Your task to perform on an android device: turn off sleep mode Image 0: 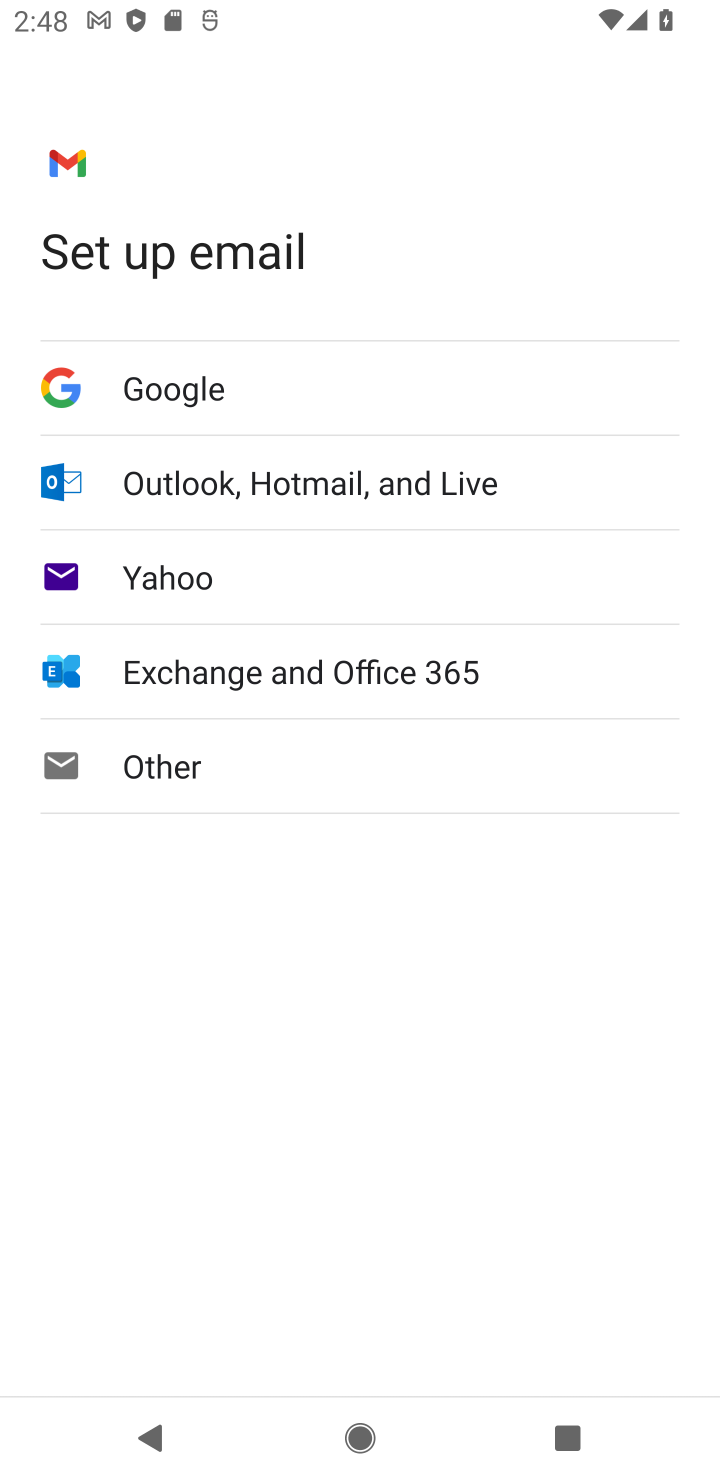
Step 0: press home button
Your task to perform on an android device: turn off sleep mode Image 1: 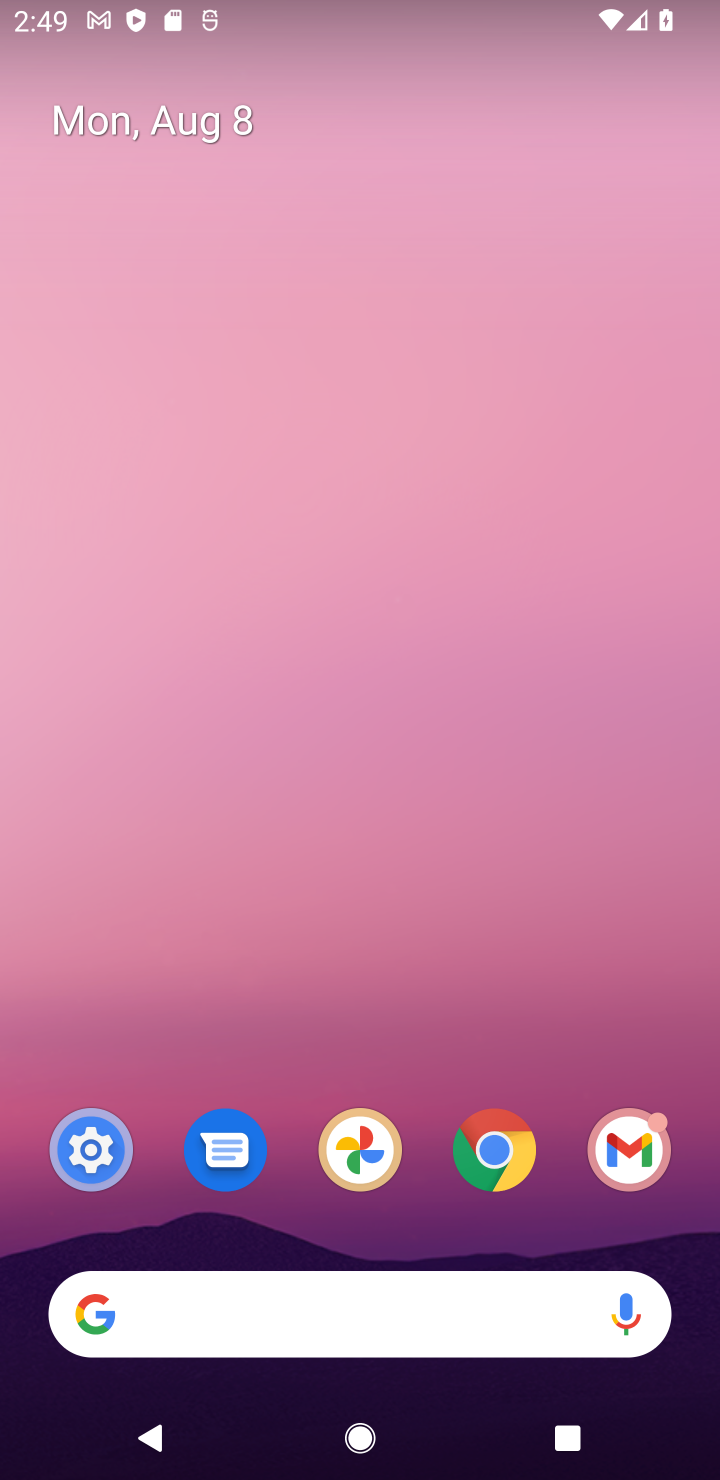
Step 1: click (81, 1166)
Your task to perform on an android device: turn off sleep mode Image 2: 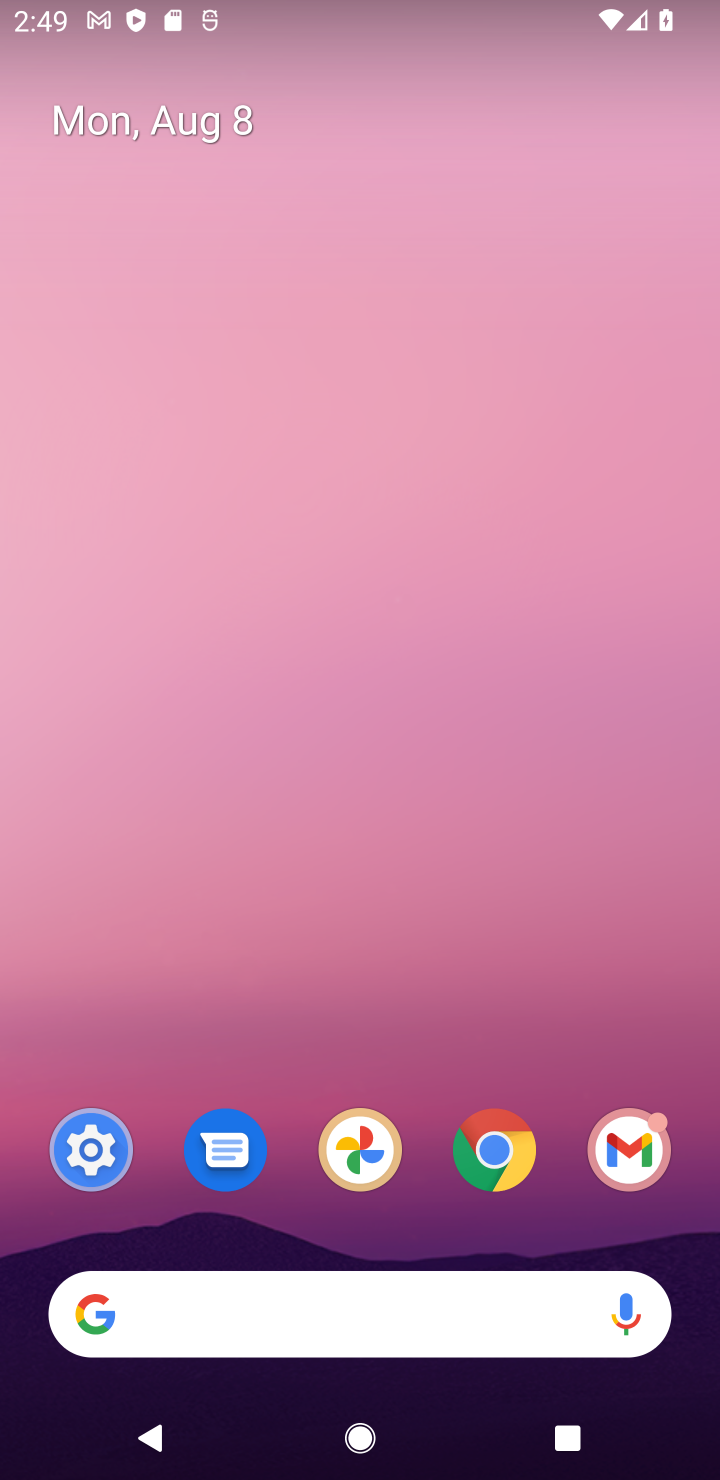
Step 2: click (68, 1192)
Your task to perform on an android device: turn off sleep mode Image 3: 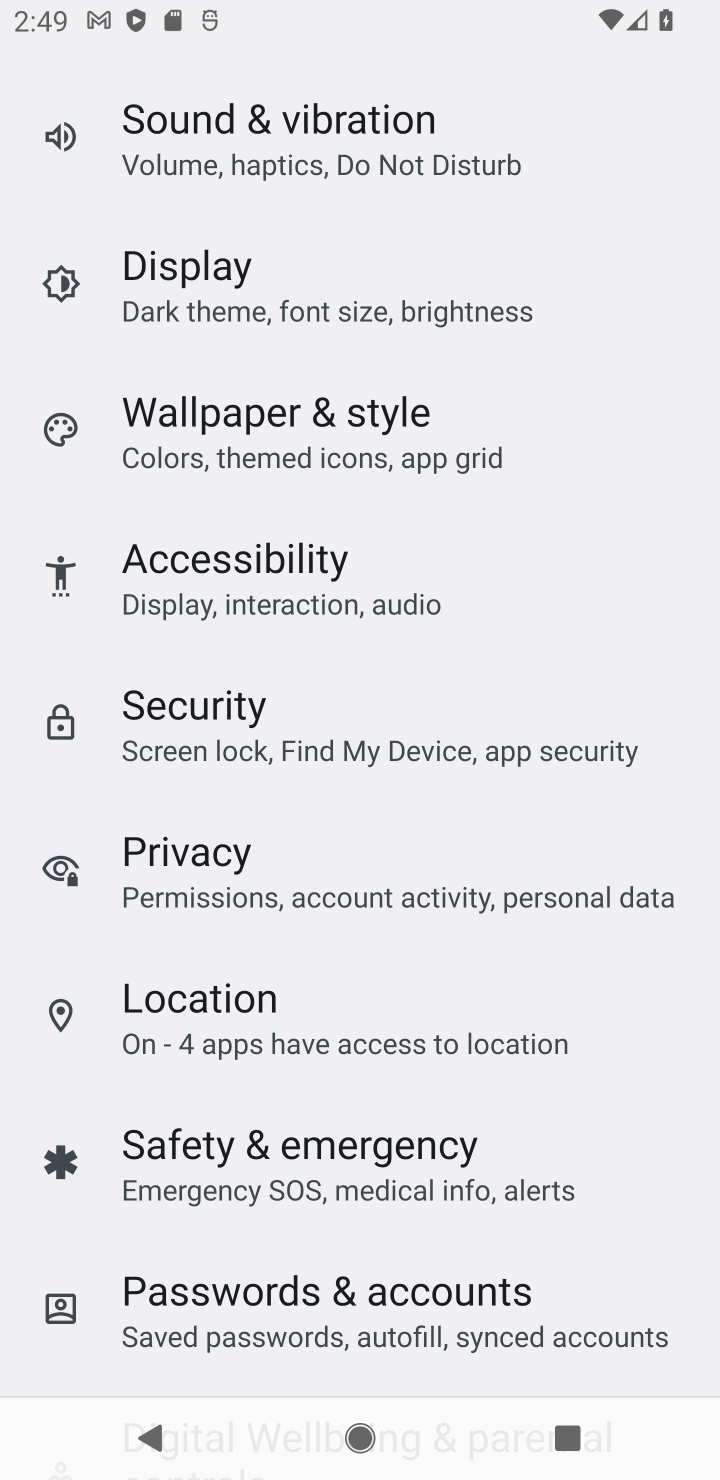
Step 3: task complete